Your task to perform on an android device: turn pop-ups off in chrome Image 0: 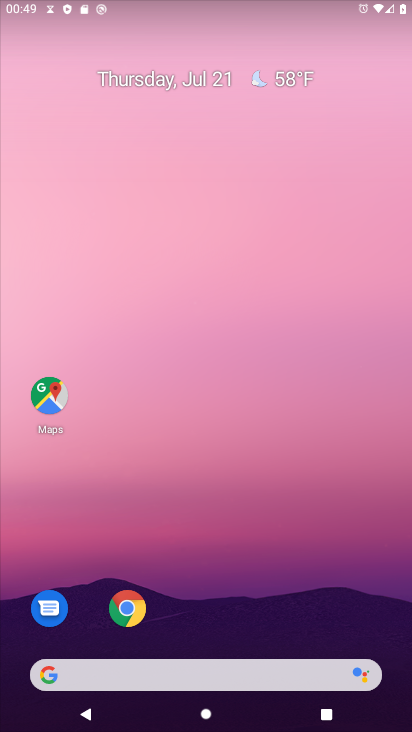
Step 0: click (223, 6)
Your task to perform on an android device: turn pop-ups off in chrome Image 1: 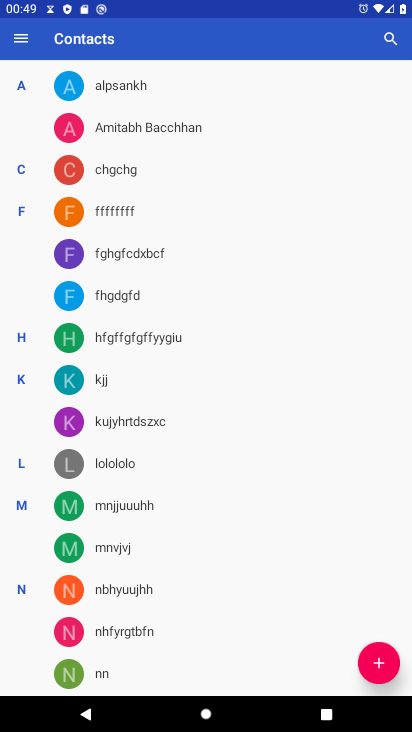
Step 1: press home button
Your task to perform on an android device: turn pop-ups off in chrome Image 2: 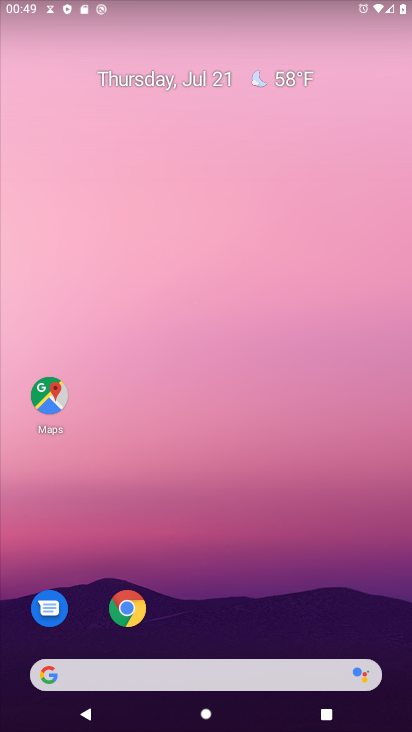
Step 2: click (120, 607)
Your task to perform on an android device: turn pop-ups off in chrome Image 3: 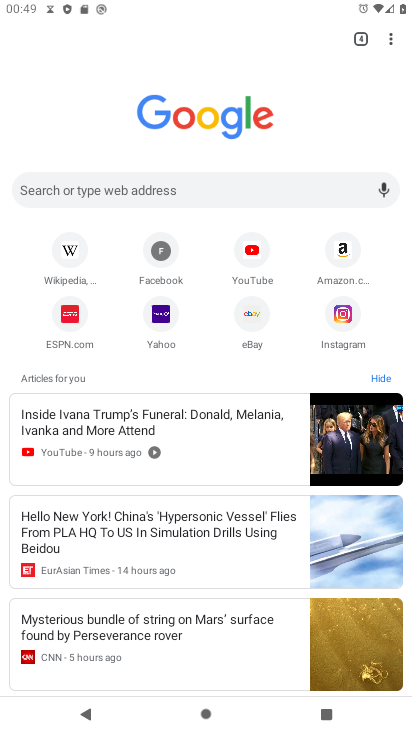
Step 3: click (390, 41)
Your task to perform on an android device: turn pop-ups off in chrome Image 4: 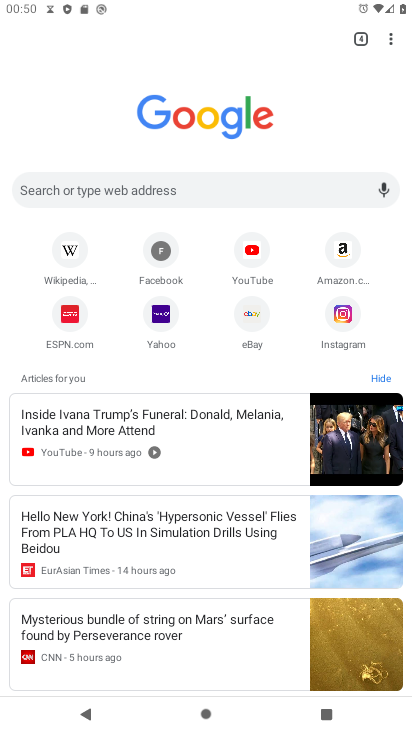
Step 4: click (388, 35)
Your task to perform on an android device: turn pop-ups off in chrome Image 5: 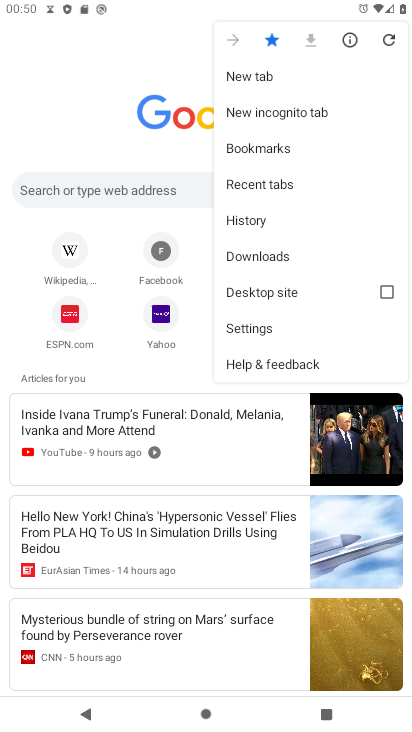
Step 5: click (275, 324)
Your task to perform on an android device: turn pop-ups off in chrome Image 6: 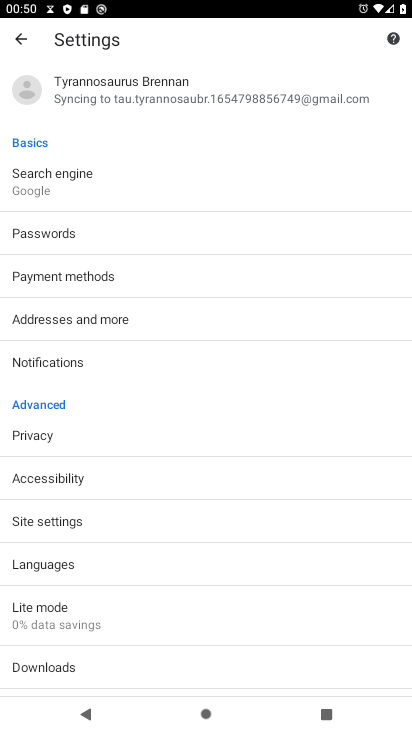
Step 6: click (95, 522)
Your task to perform on an android device: turn pop-ups off in chrome Image 7: 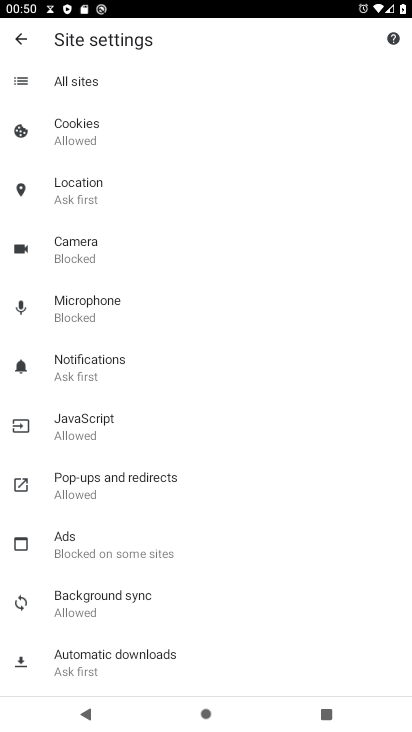
Step 7: click (120, 483)
Your task to perform on an android device: turn pop-ups off in chrome Image 8: 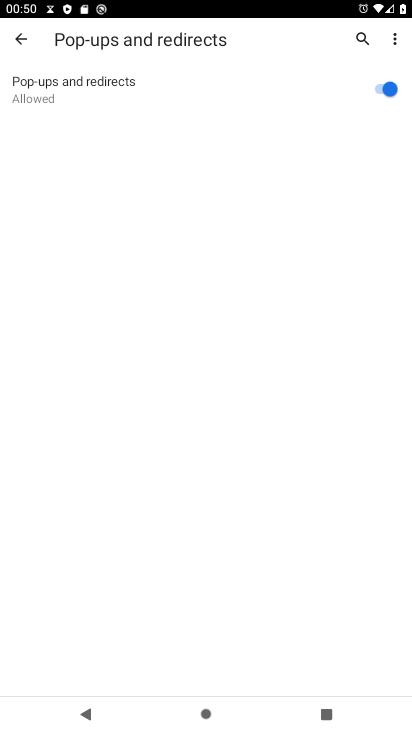
Step 8: click (378, 82)
Your task to perform on an android device: turn pop-ups off in chrome Image 9: 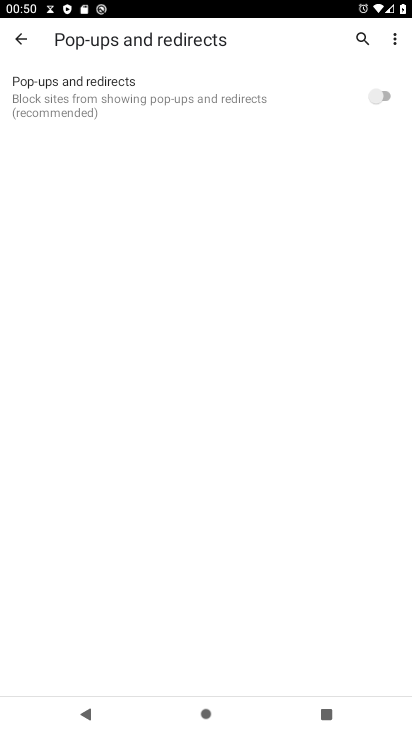
Step 9: task complete